Your task to perform on an android device: turn off priority inbox in the gmail app Image 0: 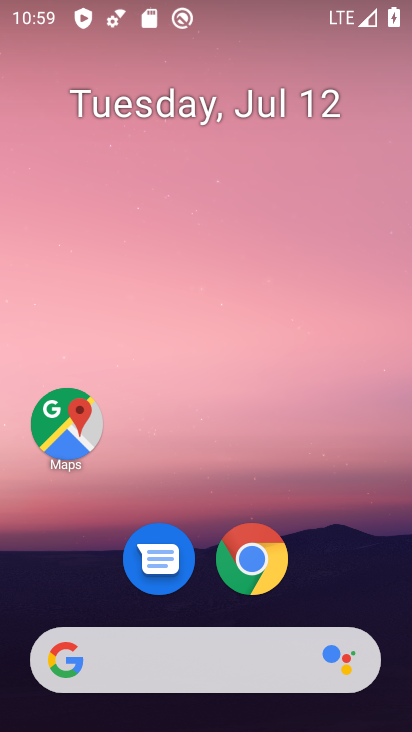
Step 0: drag from (252, 639) to (197, 34)
Your task to perform on an android device: turn off priority inbox in the gmail app Image 1: 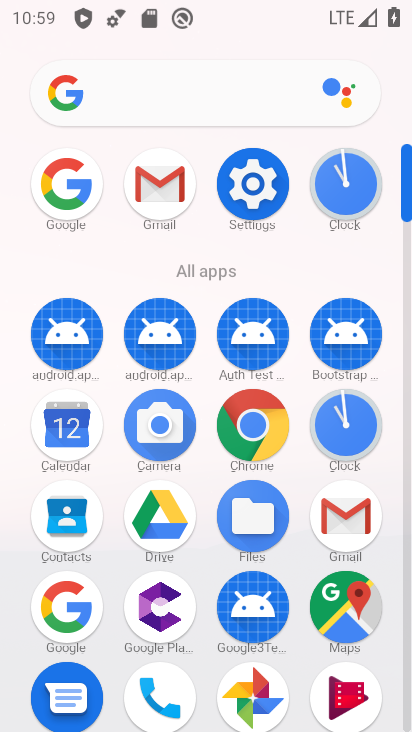
Step 1: click (336, 521)
Your task to perform on an android device: turn off priority inbox in the gmail app Image 2: 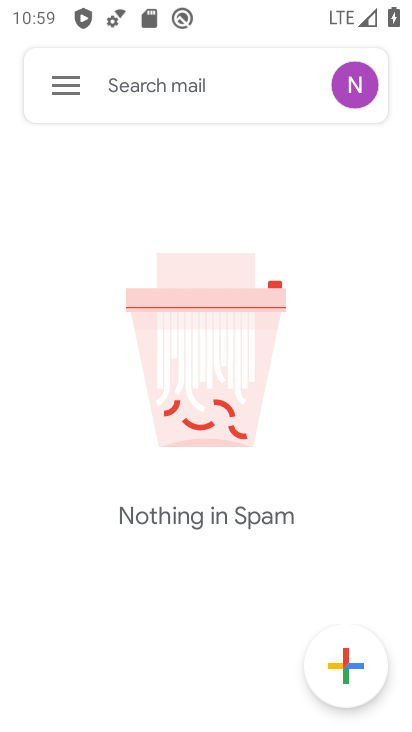
Step 2: click (75, 98)
Your task to perform on an android device: turn off priority inbox in the gmail app Image 3: 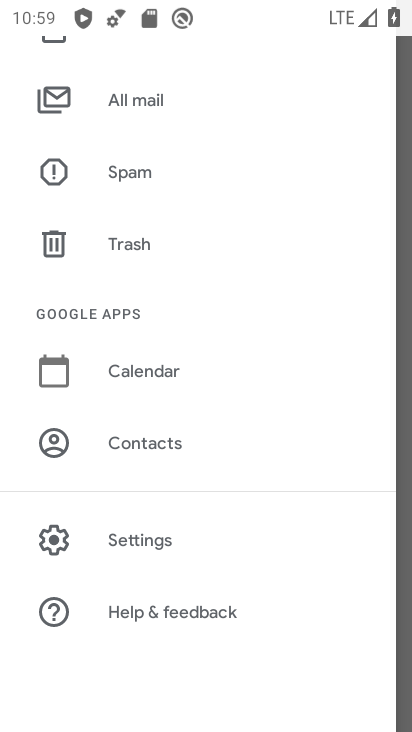
Step 3: click (139, 535)
Your task to perform on an android device: turn off priority inbox in the gmail app Image 4: 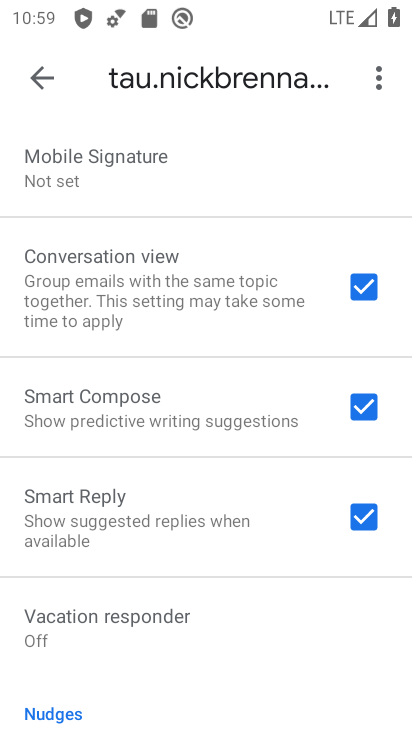
Step 4: drag from (165, 616) to (233, 598)
Your task to perform on an android device: turn off priority inbox in the gmail app Image 5: 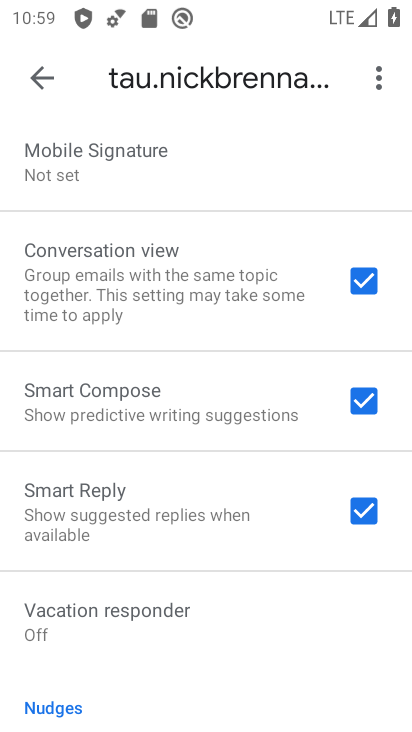
Step 5: drag from (136, 338) to (126, 602)
Your task to perform on an android device: turn off priority inbox in the gmail app Image 6: 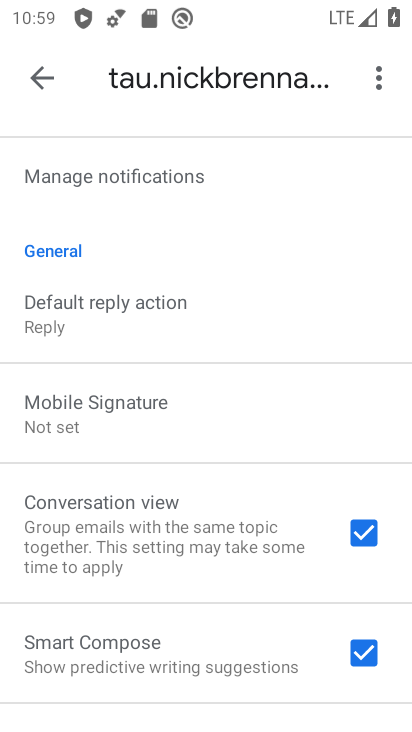
Step 6: drag from (126, 289) to (114, 609)
Your task to perform on an android device: turn off priority inbox in the gmail app Image 7: 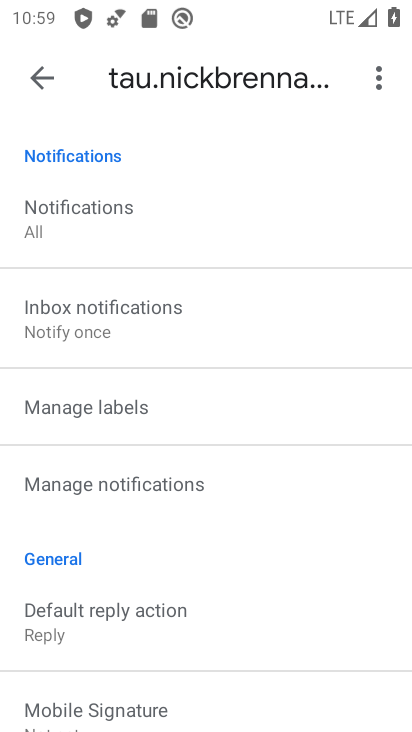
Step 7: drag from (170, 240) to (162, 553)
Your task to perform on an android device: turn off priority inbox in the gmail app Image 8: 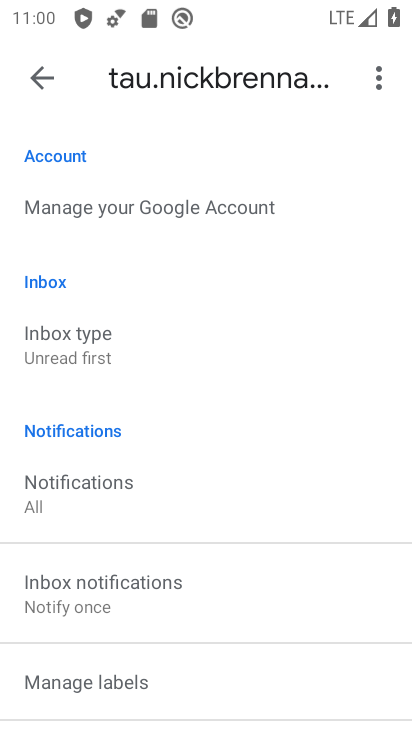
Step 8: drag from (172, 330) to (170, 517)
Your task to perform on an android device: turn off priority inbox in the gmail app Image 9: 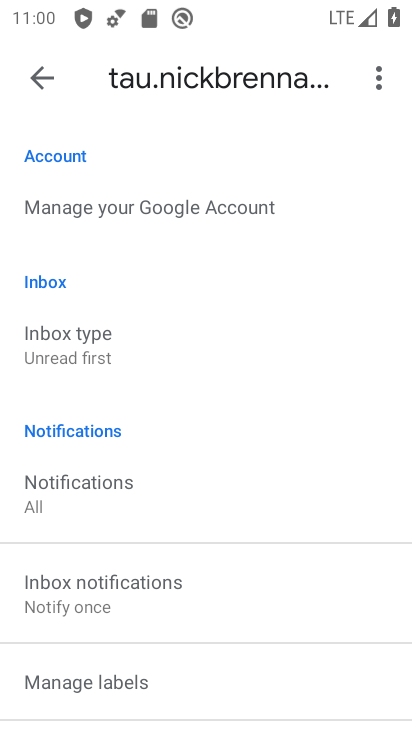
Step 9: click (98, 351)
Your task to perform on an android device: turn off priority inbox in the gmail app Image 10: 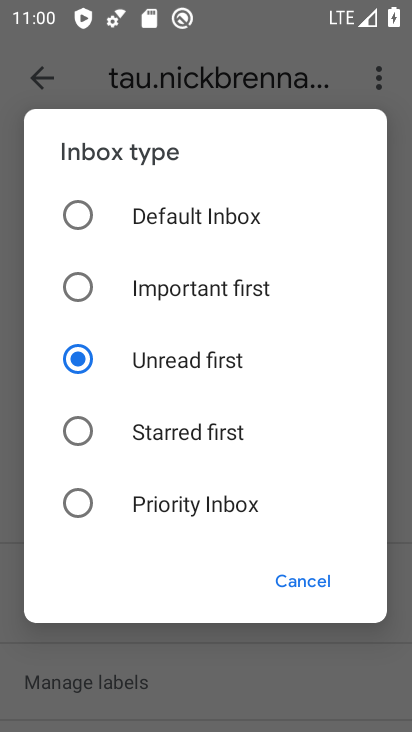
Step 10: task complete